Your task to perform on an android device: Add "dell xps" to the cart on bestbuy, then select checkout. Image 0: 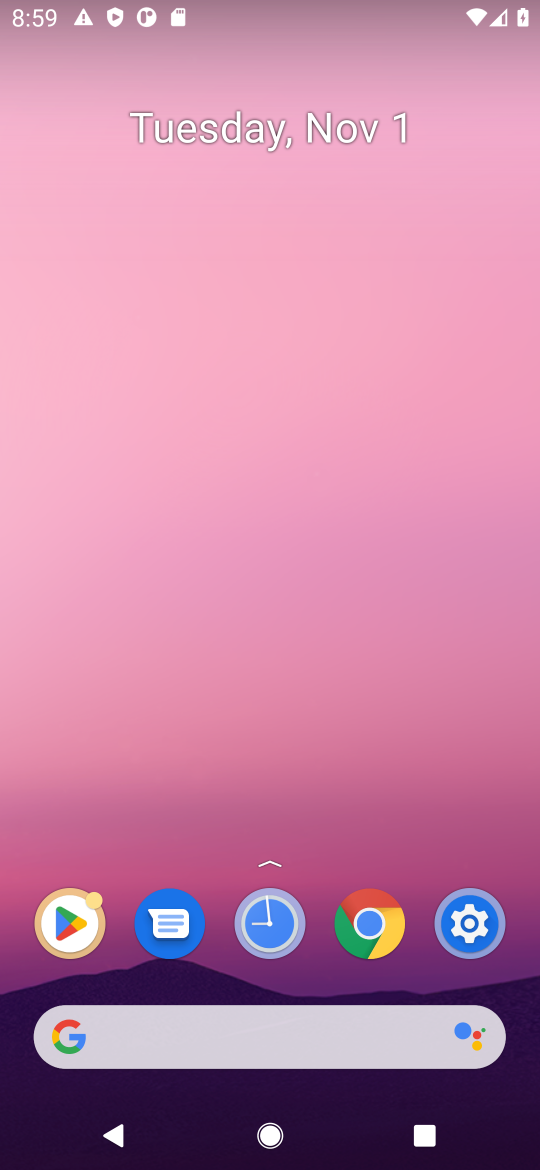
Step 0: drag from (333, 984) to (294, 31)
Your task to perform on an android device: Add "dell xps" to the cart on bestbuy, then select checkout. Image 1: 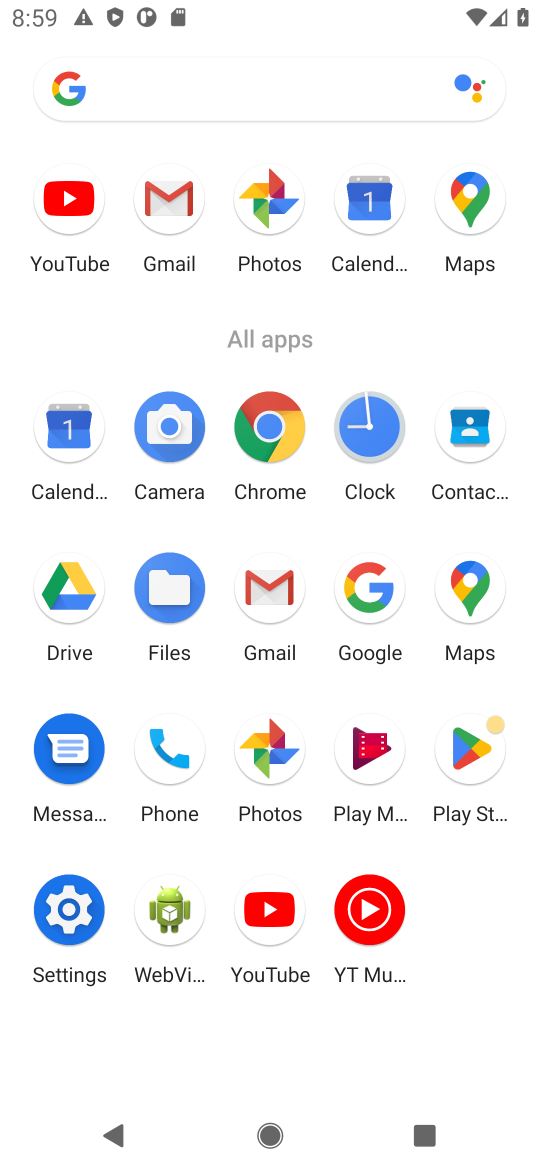
Step 1: click (272, 436)
Your task to perform on an android device: Add "dell xps" to the cart on bestbuy, then select checkout. Image 2: 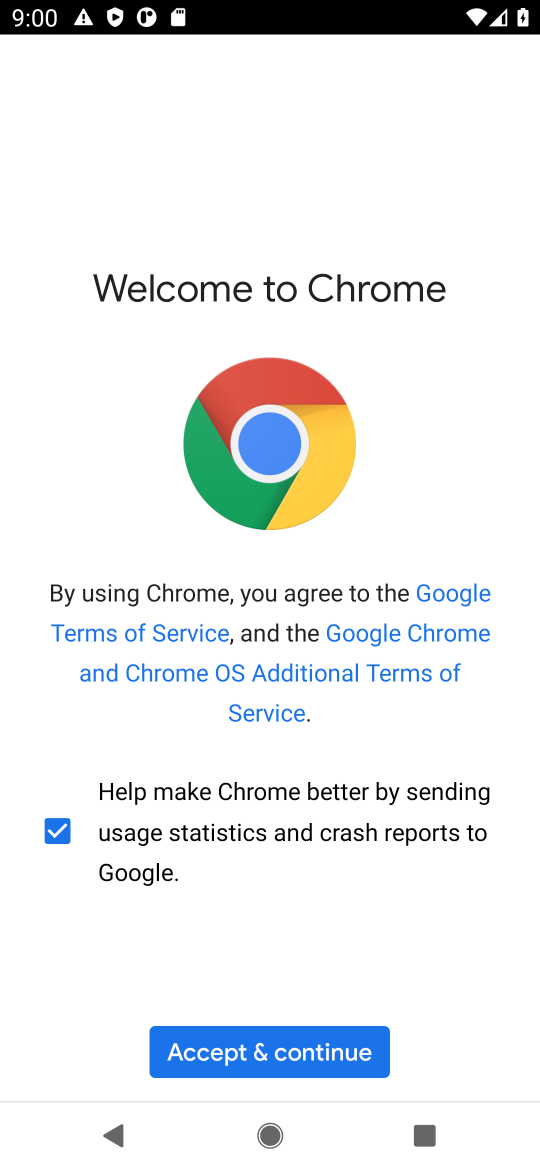
Step 2: click (351, 1044)
Your task to perform on an android device: Add "dell xps" to the cart on bestbuy, then select checkout. Image 3: 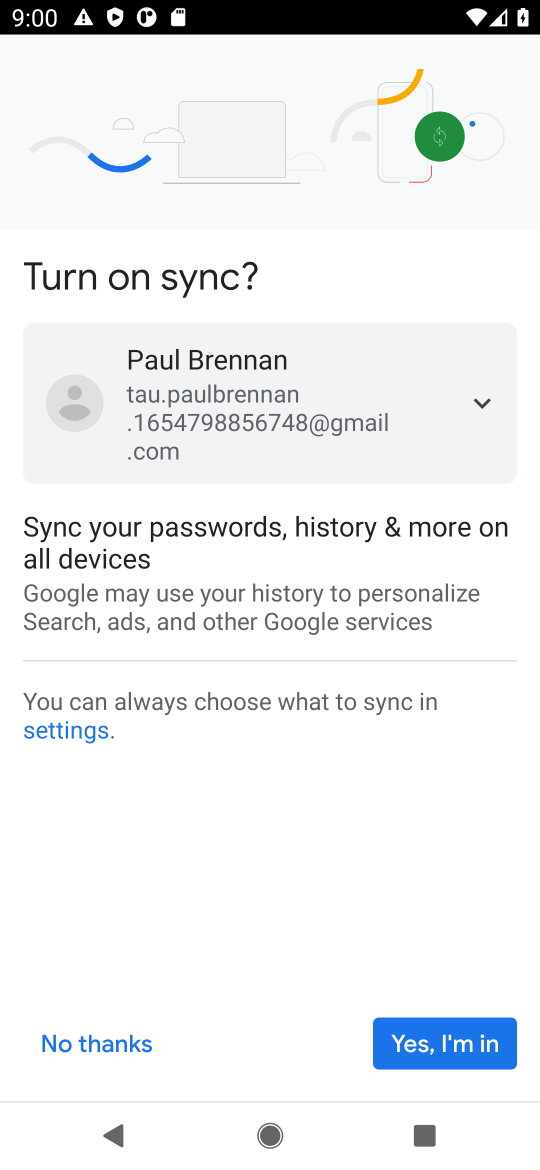
Step 3: click (464, 1050)
Your task to perform on an android device: Add "dell xps" to the cart on bestbuy, then select checkout. Image 4: 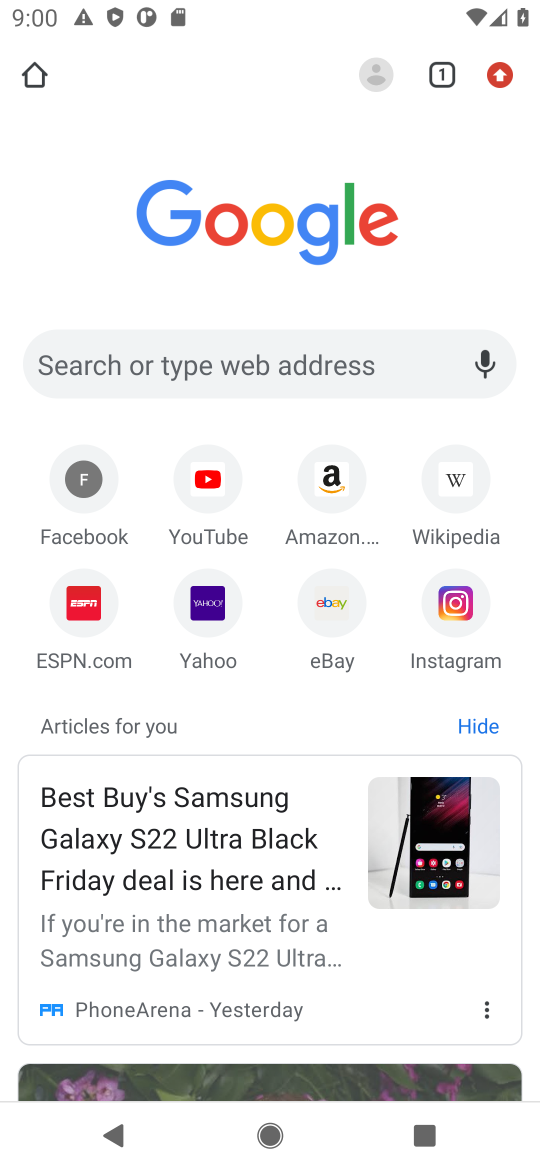
Step 4: click (348, 363)
Your task to perform on an android device: Add "dell xps" to the cart on bestbuy, then select checkout. Image 5: 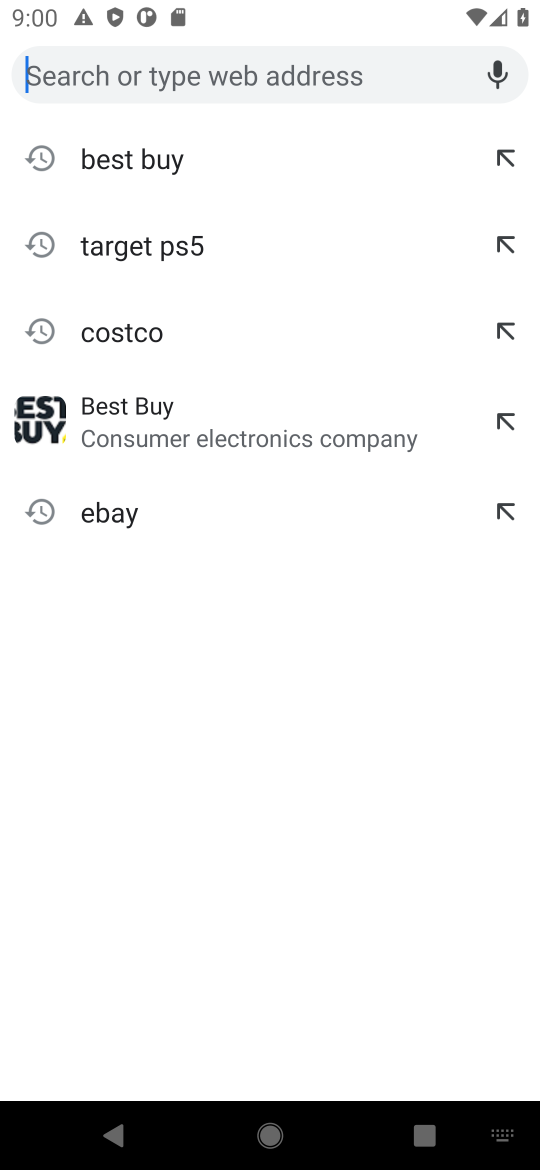
Step 5: type "bestbuy.com"
Your task to perform on an android device: Add "dell xps" to the cart on bestbuy, then select checkout. Image 6: 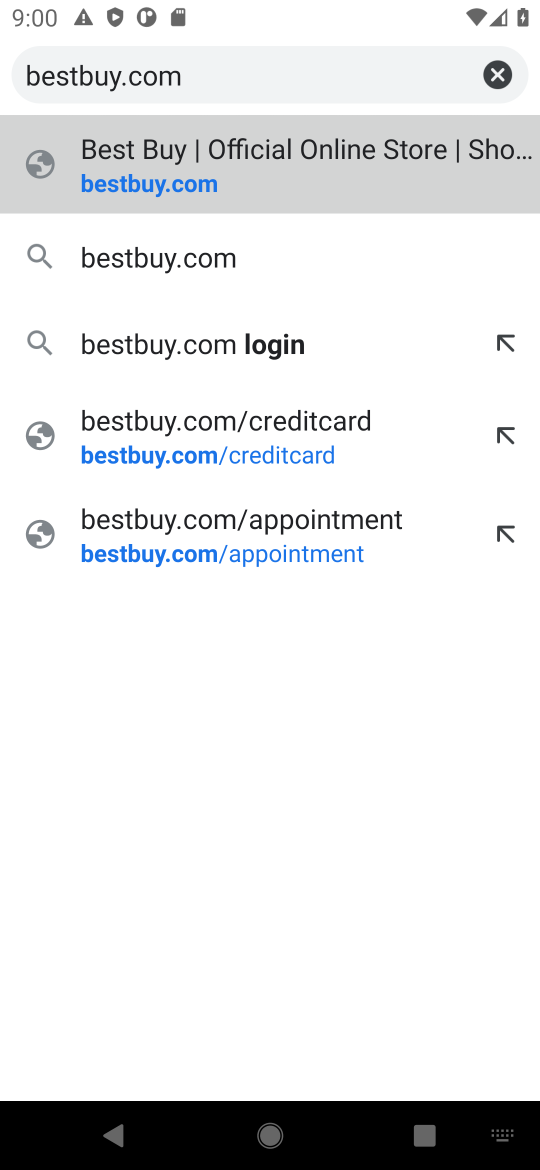
Step 6: press enter
Your task to perform on an android device: Add "dell xps" to the cart on bestbuy, then select checkout. Image 7: 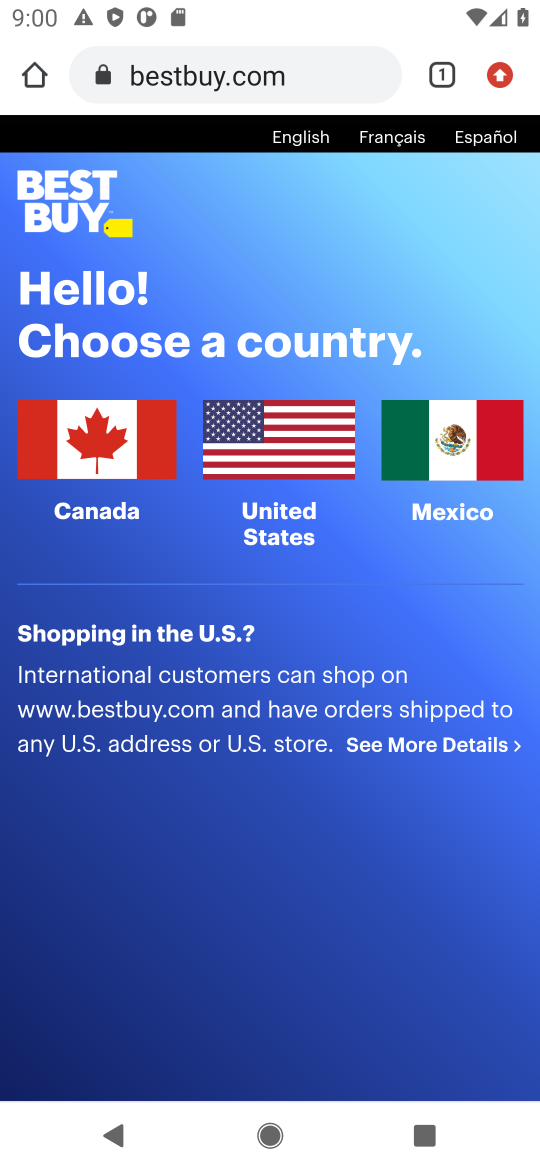
Step 7: click (124, 434)
Your task to perform on an android device: Add "dell xps" to the cart on bestbuy, then select checkout. Image 8: 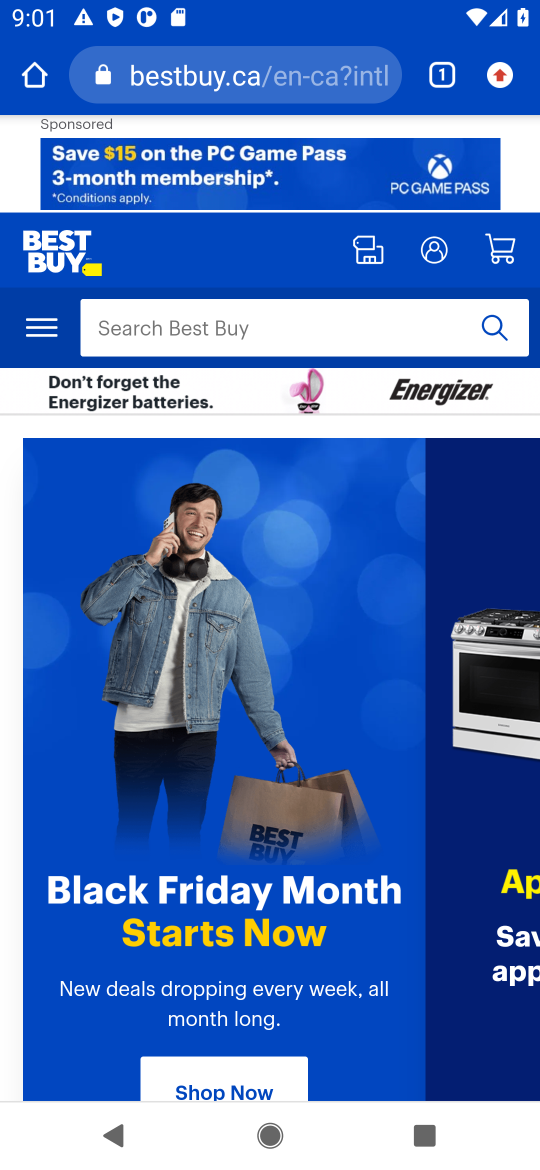
Step 8: click (305, 323)
Your task to perform on an android device: Add "dell xps" to the cart on bestbuy, then select checkout. Image 9: 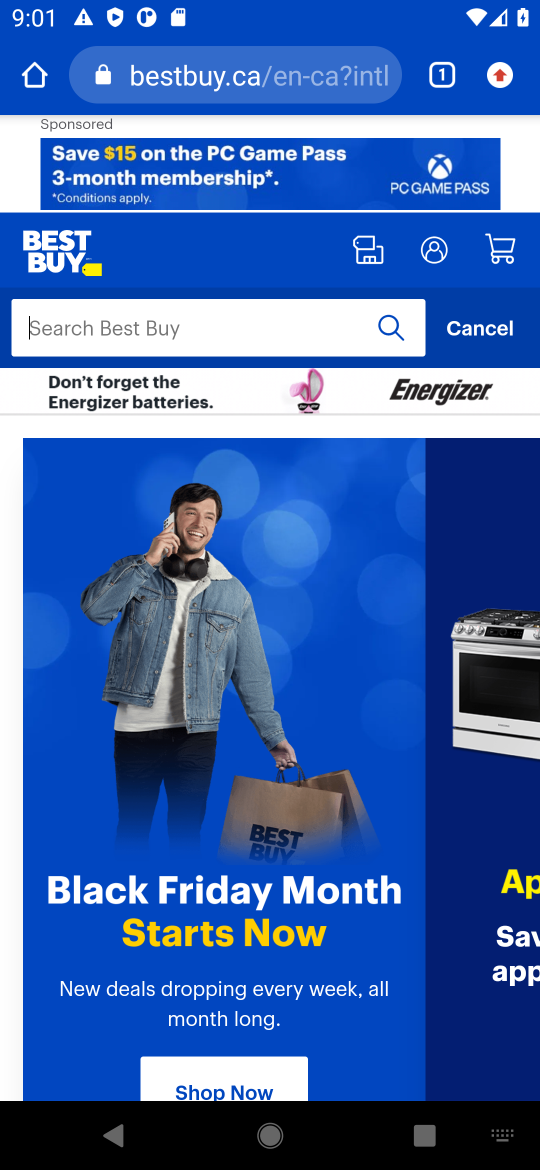
Step 9: type "dell xps"
Your task to perform on an android device: Add "dell xps" to the cart on bestbuy, then select checkout. Image 10: 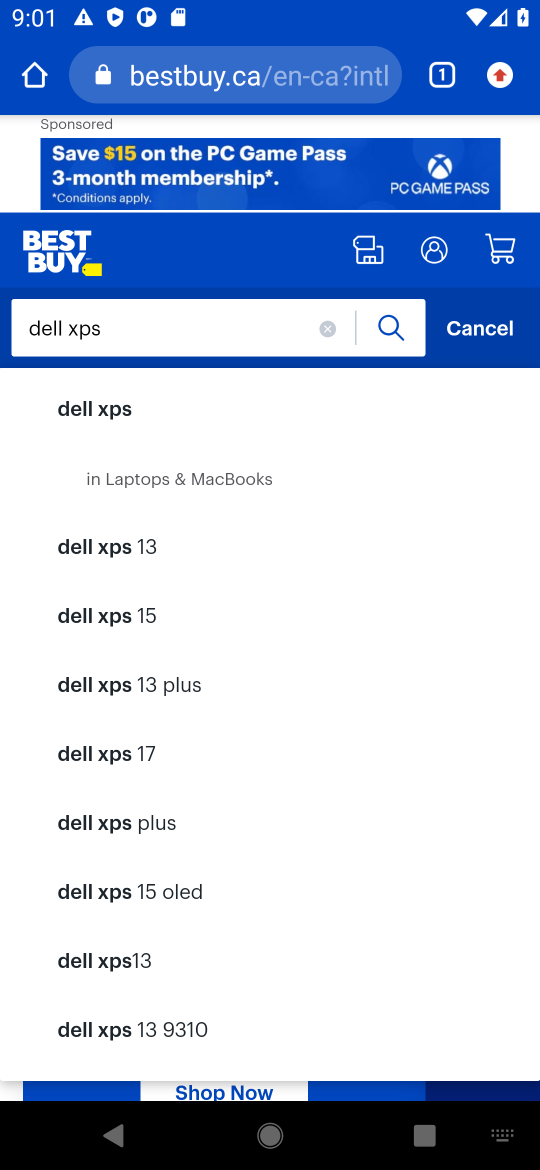
Step 10: press enter
Your task to perform on an android device: Add "dell xps" to the cart on bestbuy, then select checkout. Image 11: 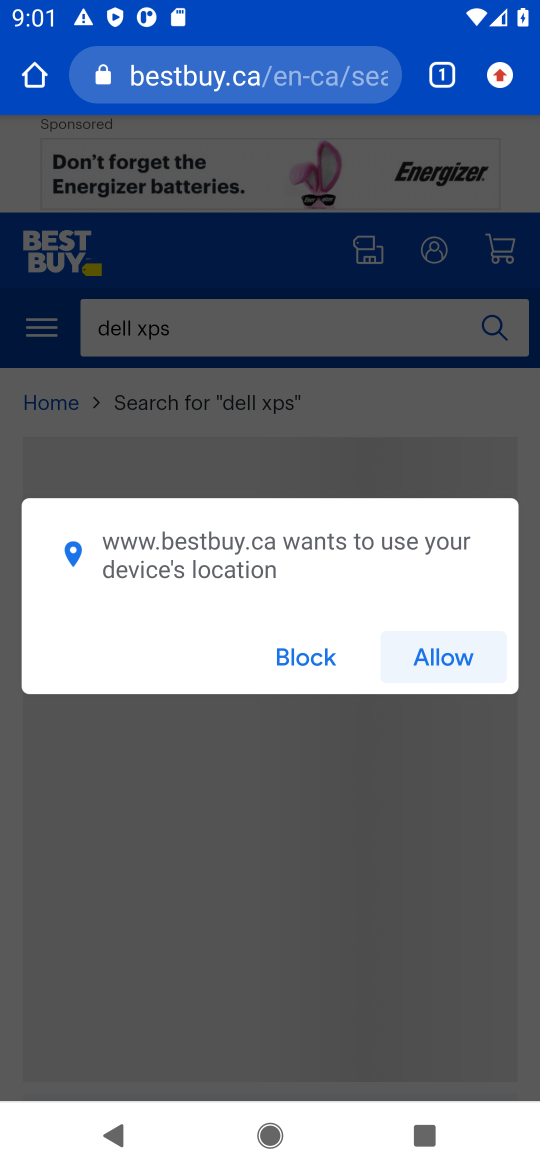
Step 11: click (321, 665)
Your task to perform on an android device: Add "dell xps" to the cart on bestbuy, then select checkout. Image 12: 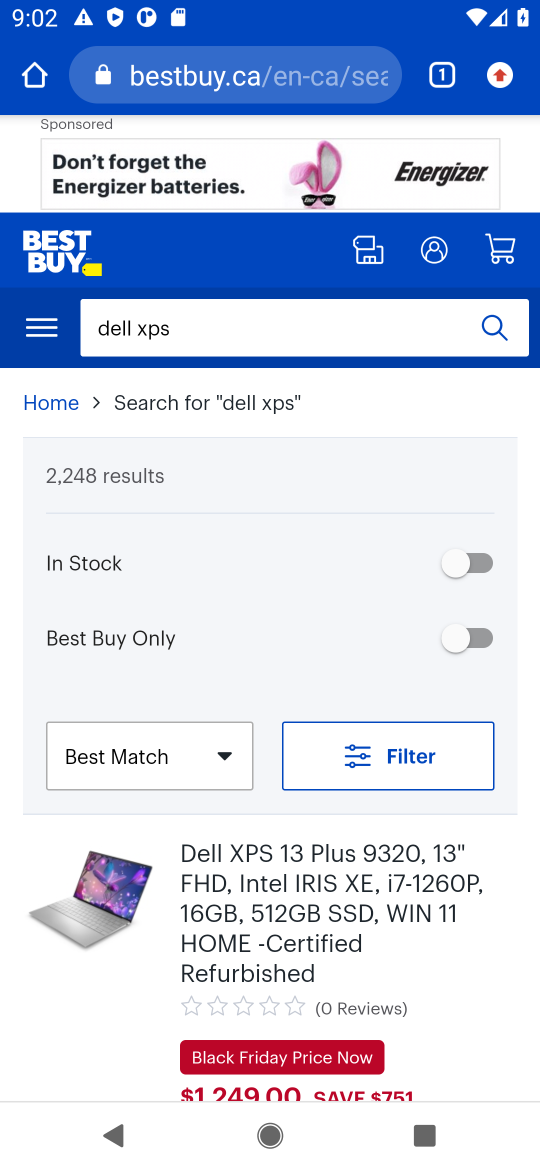
Step 12: click (302, 928)
Your task to perform on an android device: Add "dell xps" to the cart on bestbuy, then select checkout. Image 13: 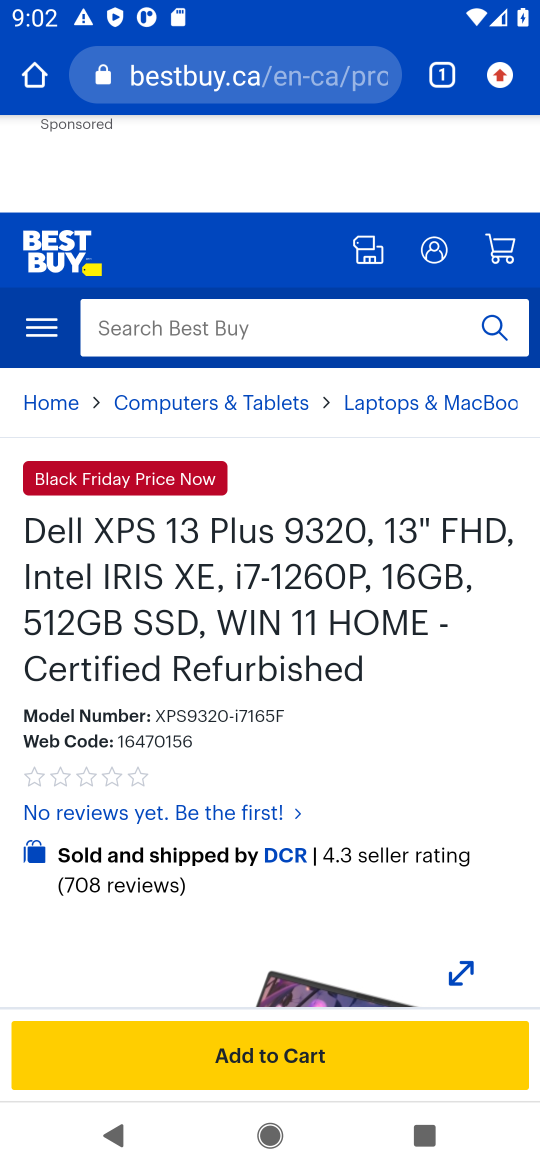
Step 13: drag from (302, 925) to (298, 355)
Your task to perform on an android device: Add "dell xps" to the cart on bestbuy, then select checkout. Image 14: 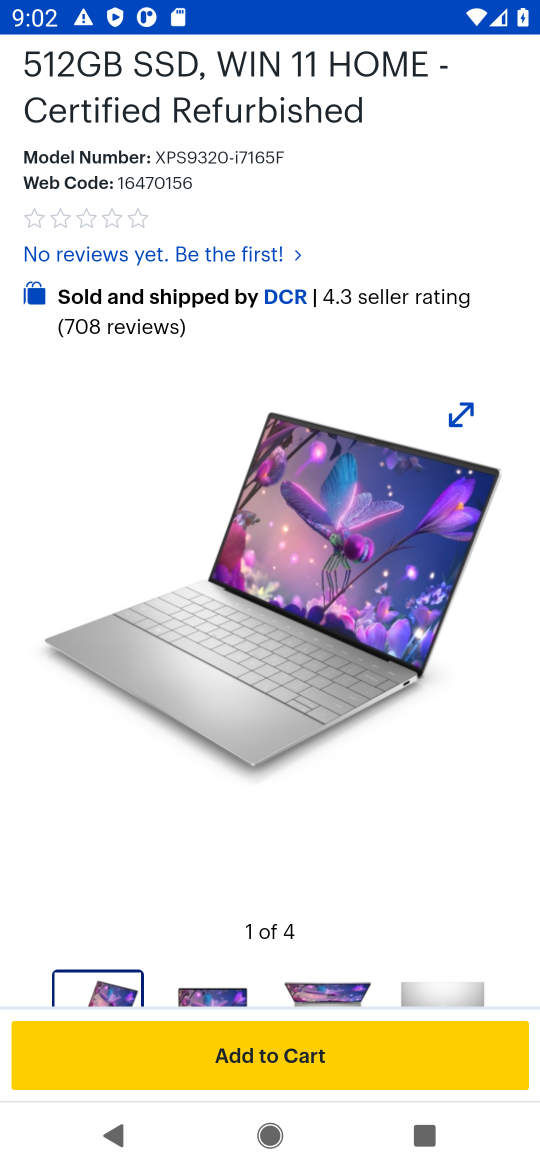
Step 14: click (342, 1060)
Your task to perform on an android device: Add "dell xps" to the cart on bestbuy, then select checkout. Image 15: 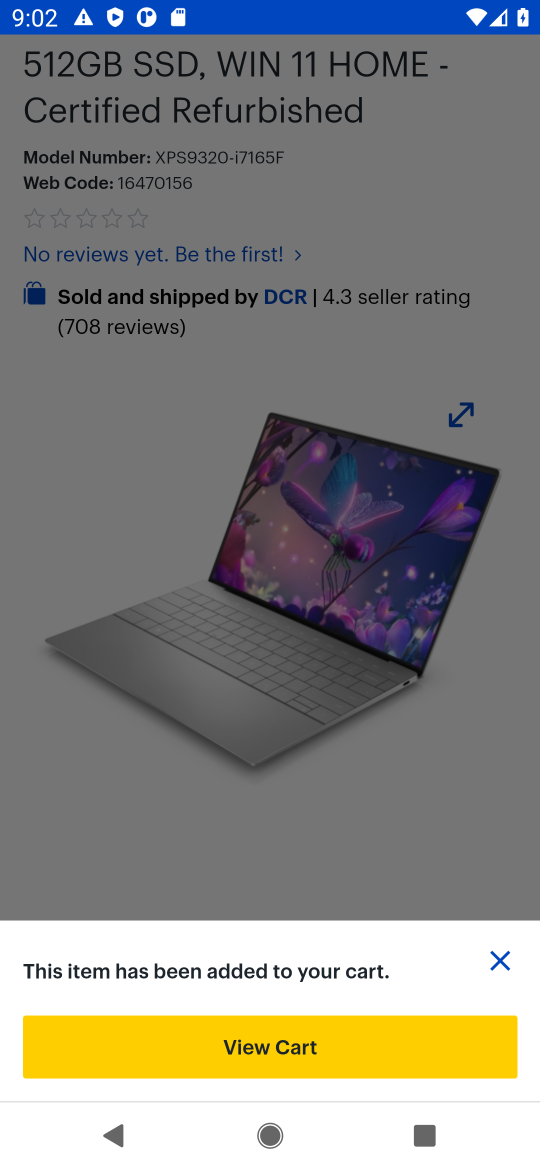
Step 15: click (342, 1060)
Your task to perform on an android device: Add "dell xps" to the cart on bestbuy, then select checkout. Image 16: 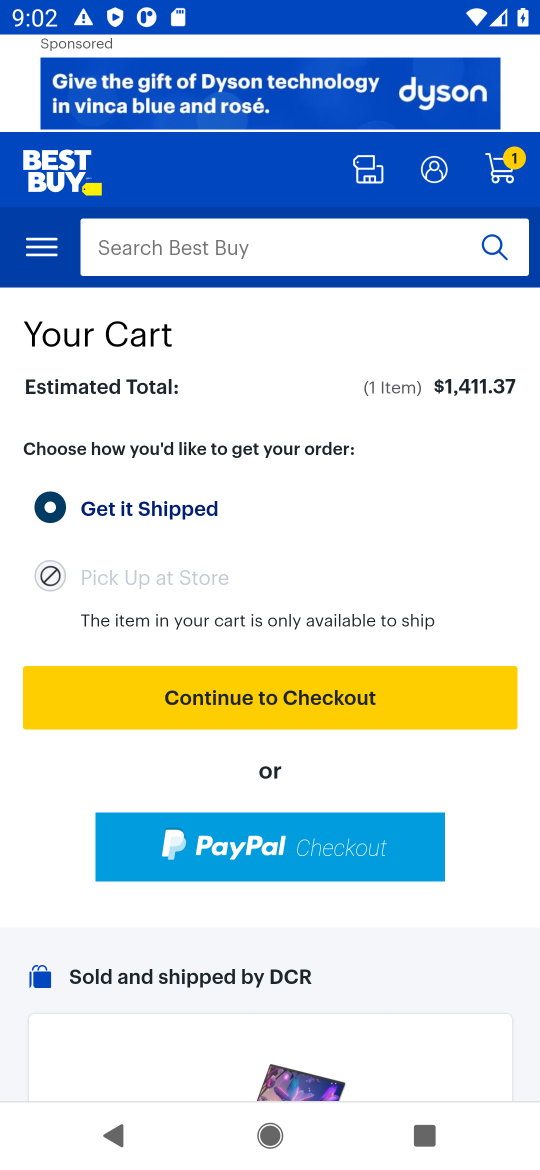
Step 16: click (336, 711)
Your task to perform on an android device: Add "dell xps" to the cart on bestbuy, then select checkout. Image 17: 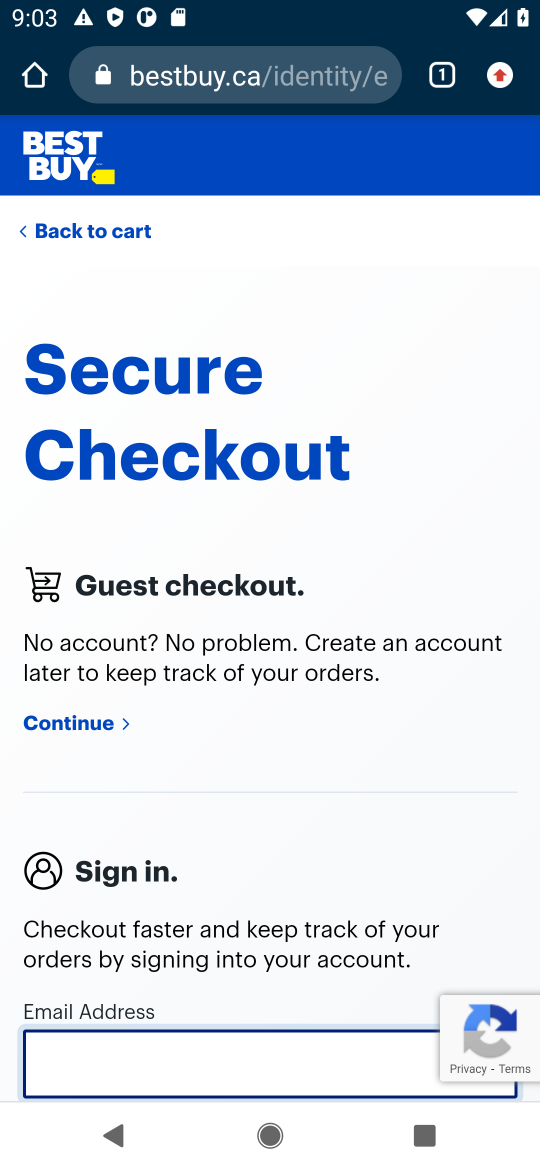
Step 17: task complete